Your task to perform on an android device: turn on sleep mode Image 0: 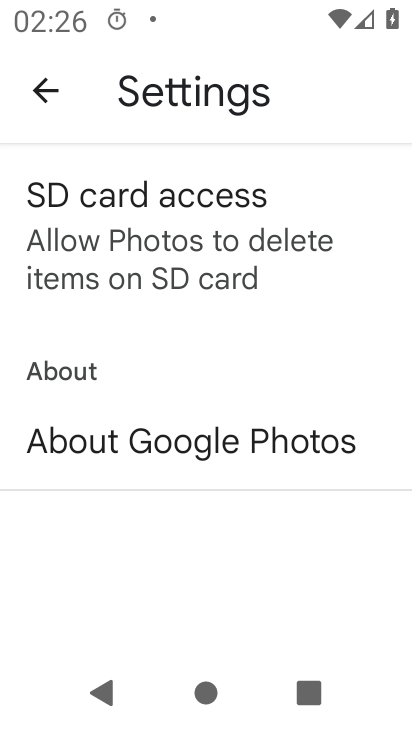
Step 0: press home button
Your task to perform on an android device: turn on sleep mode Image 1: 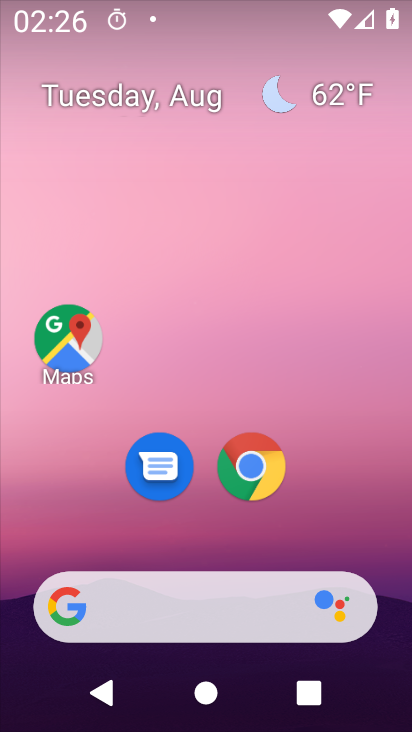
Step 1: drag from (386, 560) to (381, 93)
Your task to perform on an android device: turn on sleep mode Image 2: 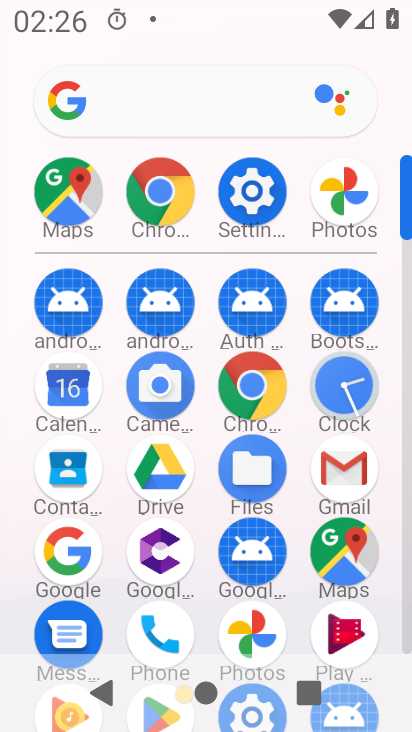
Step 2: click (260, 202)
Your task to perform on an android device: turn on sleep mode Image 3: 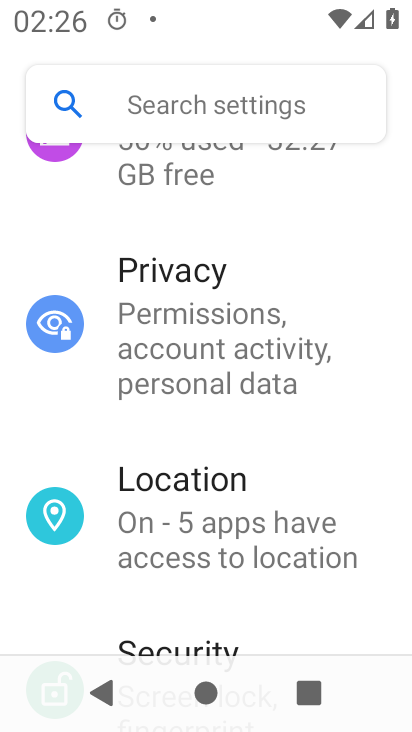
Step 3: drag from (366, 230) to (370, 366)
Your task to perform on an android device: turn on sleep mode Image 4: 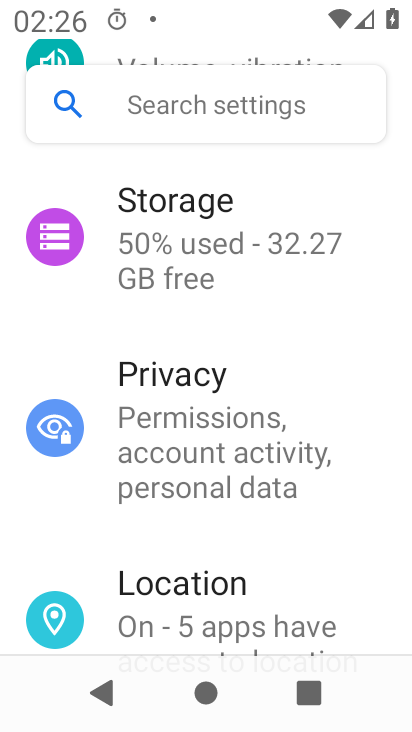
Step 4: drag from (370, 234) to (382, 366)
Your task to perform on an android device: turn on sleep mode Image 5: 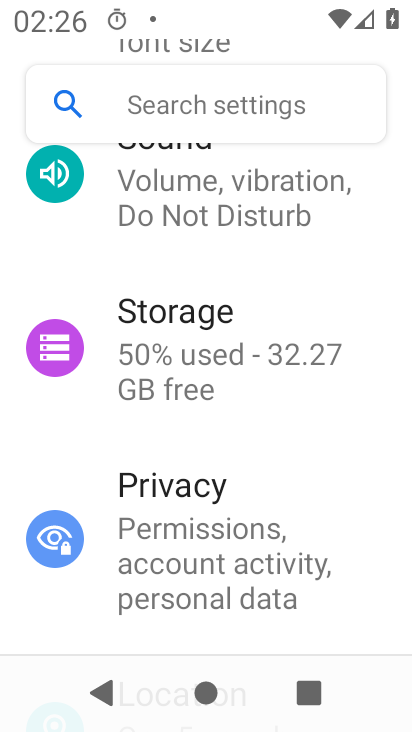
Step 5: drag from (377, 203) to (380, 359)
Your task to perform on an android device: turn on sleep mode Image 6: 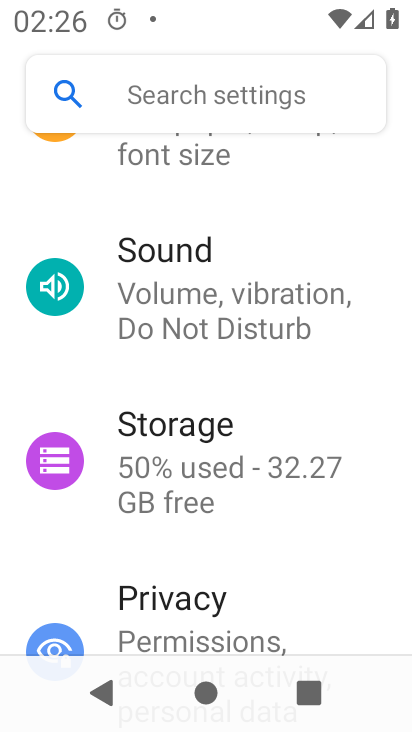
Step 6: drag from (360, 192) to (368, 364)
Your task to perform on an android device: turn on sleep mode Image 7: 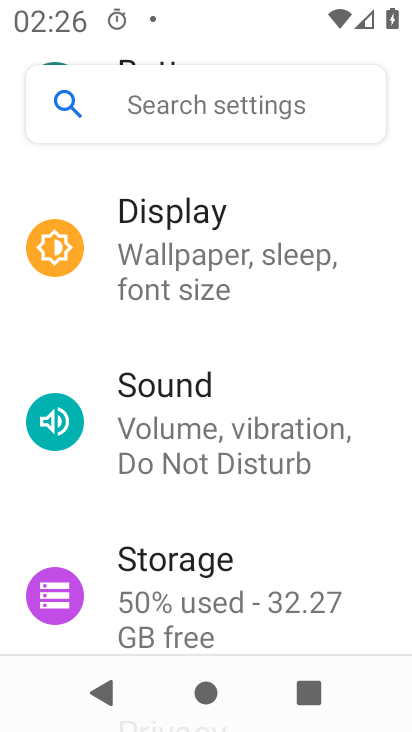
Step 7: drag from (365, 194) to (366, 364)
Your task to perform on an android device: turn on sleep mode Image 8: 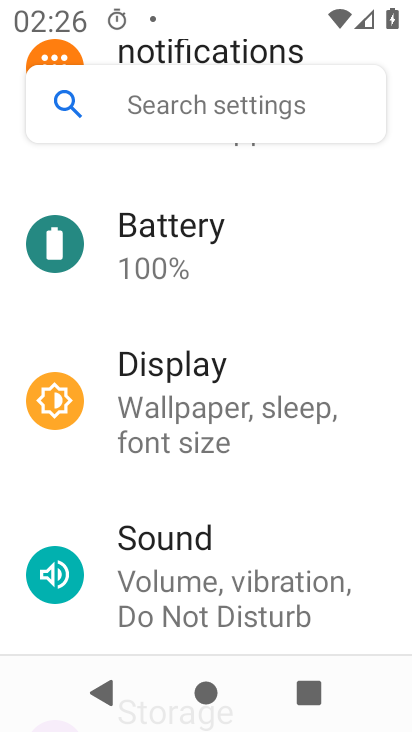
Step 8: click (311, 401)
Your task to perform on an android device: turn on sleep mode Image 9: 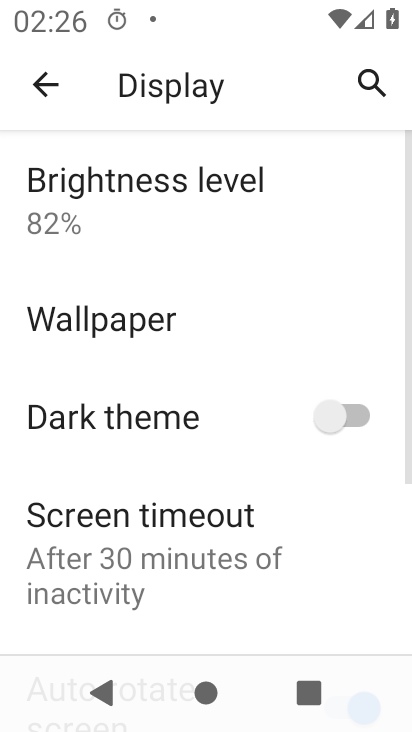
Step 9: drag from (292, 492) to (290, 330)
Your task to perform on an android device: turn on sleep mode Image 10: 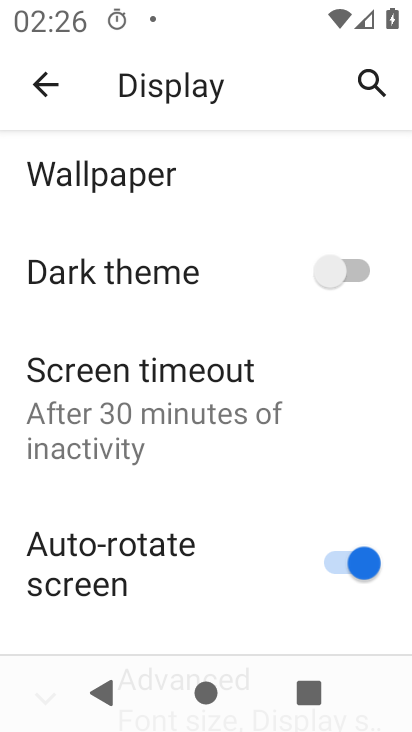
Step 10: drag from (258, 502) to (276, 333)
Your task to perform on an android device: turn on sleep mode Image 11: 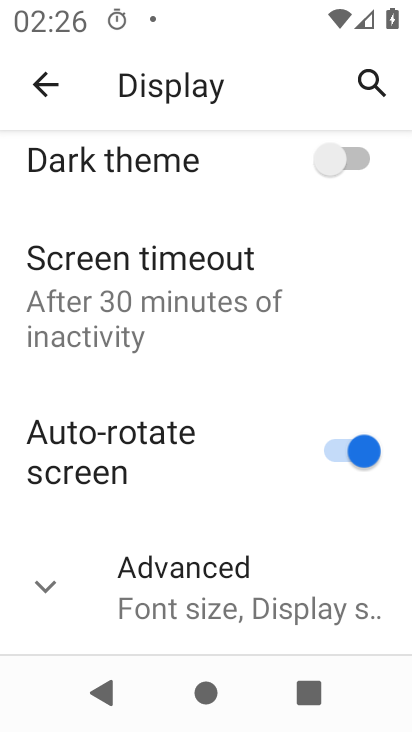
Step 11: click (235, 586)
Your task to perform on an android device: turn on sleep mode Image 12: 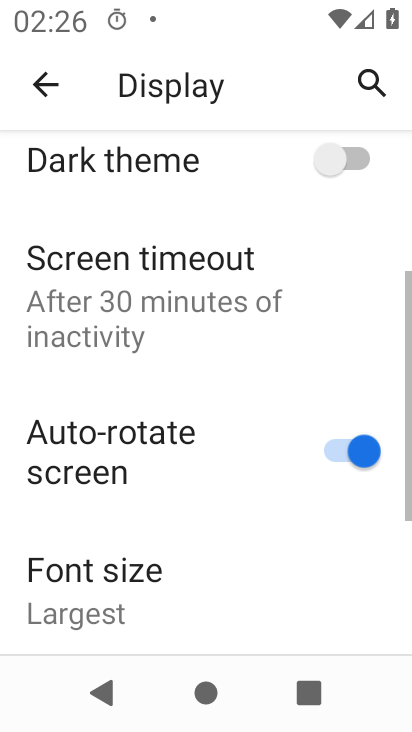
Step 12: task complete